Your task to perform on an android device: open chrome privacy settings Image 0: 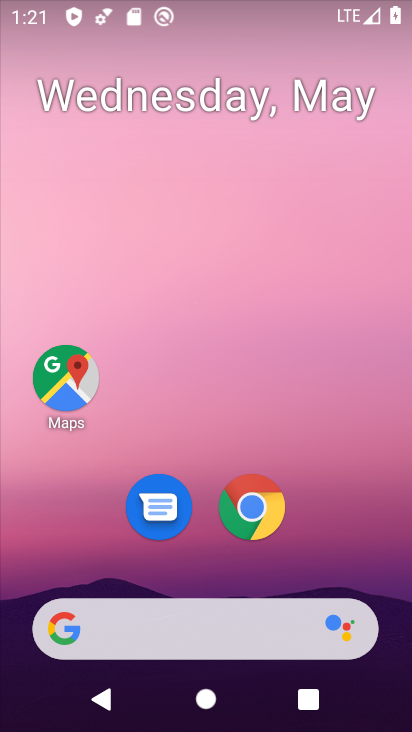
Step 0: drag from (395, 569) to (259, 186)
Your task to perform on an android device: open chrome privacy settings Image 1: 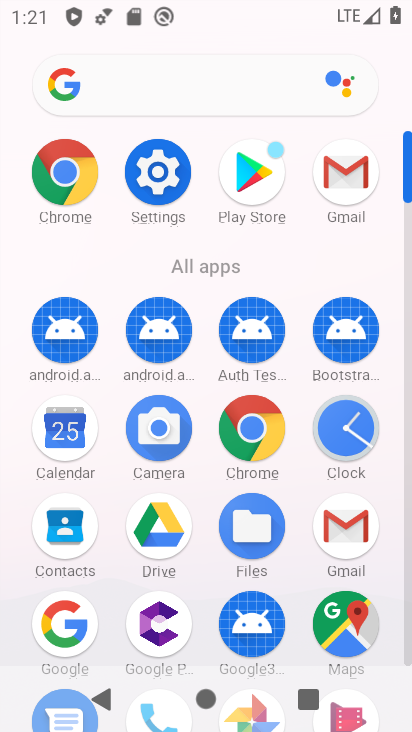
Step 1: click (162, 176)
Your task to perform on an android device: open chrome privacy settings Image 2: 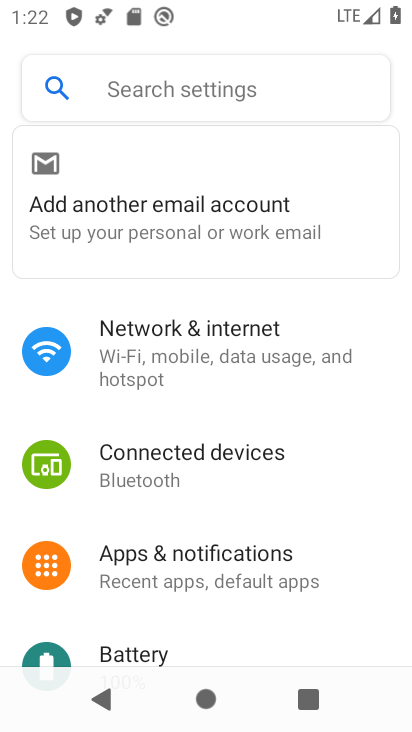
Step 2: drag from (272, 616) to (236, 170)
Your task to perform on an android device: open chrome privacy settings Image 3: 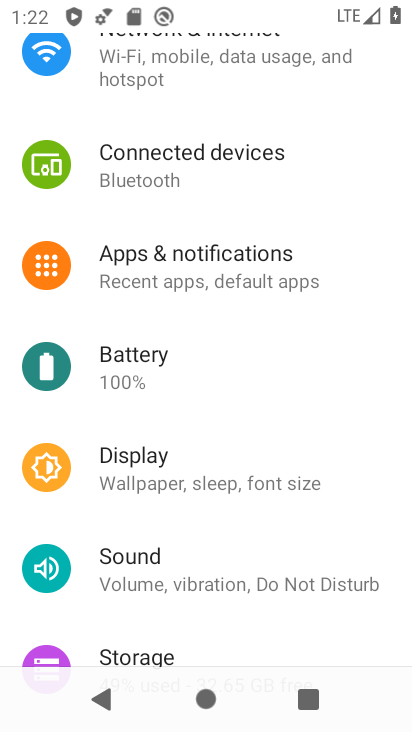
Step 3: drag from (267, 620) to (209, 157)
Your task to perform on an android device: open chrome privacy settings Image 4: 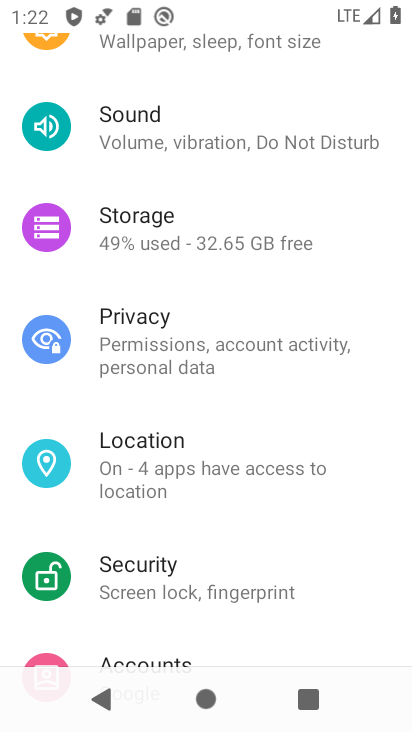
Step 4: click (229, 327)
Your task to perform on an android device: open chrome privacy settings Image 5: 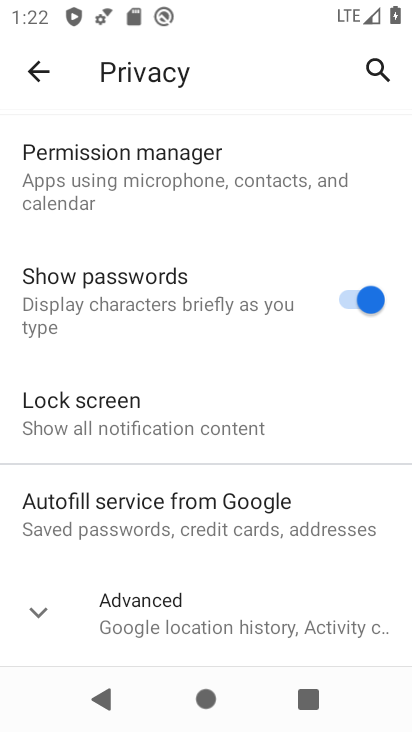
Step 5: task complete